Your task to perform on an android device: open sync settings in chrome Image 0: 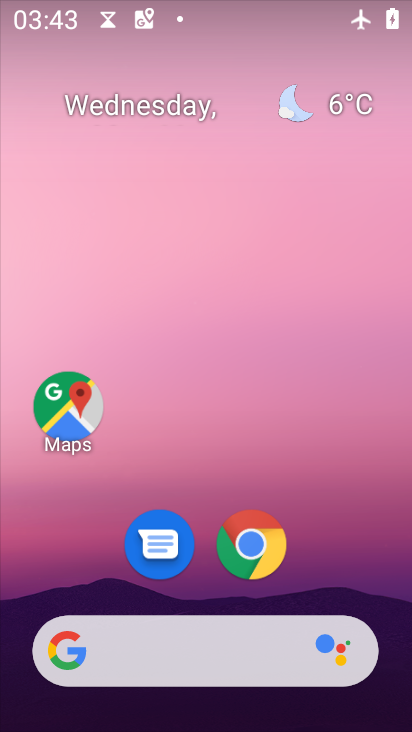
Step 0: drag from (312, 582) to (311, 4)
Your task to perform on an android device: open sync settings in chrome Image 1: 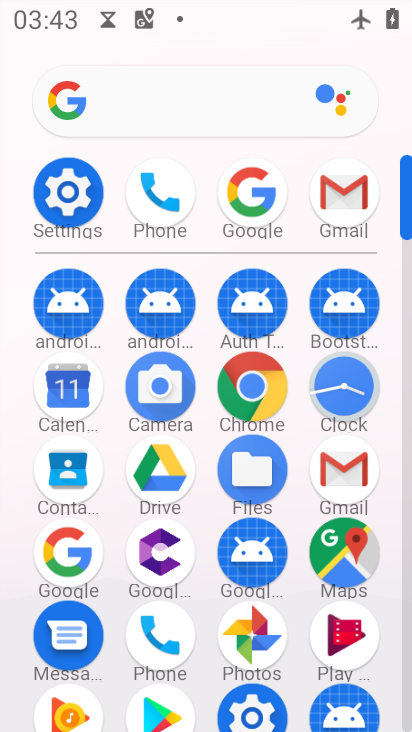
Step 1: click (231, 388)
Your task to perform on an android device: open sync settings in chrome Image 2: 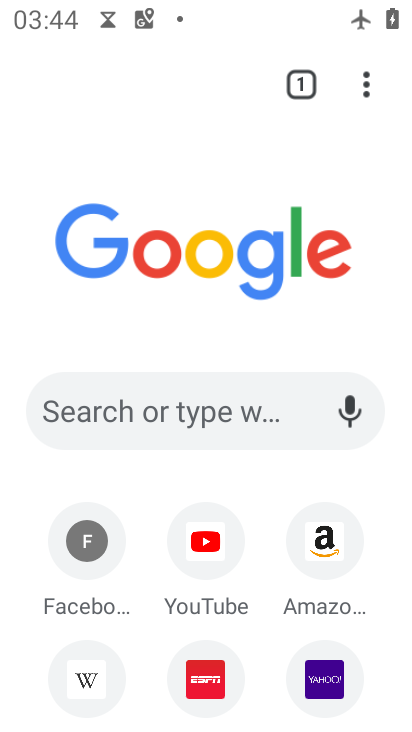
Step 2: click (362, 91)
Your task to perform on an android device: open sync settings in chrome Image 3: 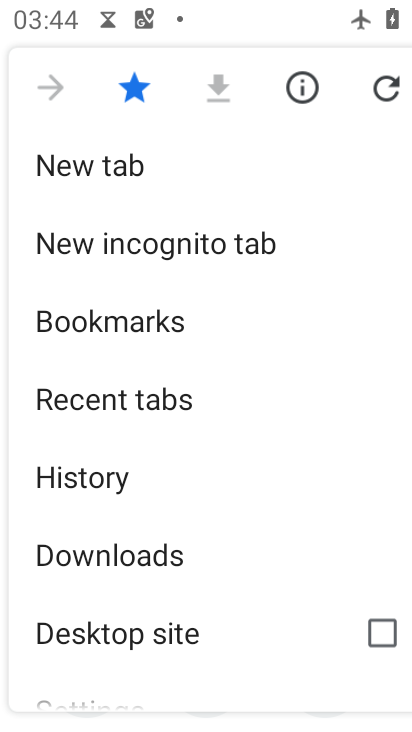
Step 3: drag from (167, 566) to (204, 161)
Your task to perform on an android device: open sync settings in chrome Image 4: 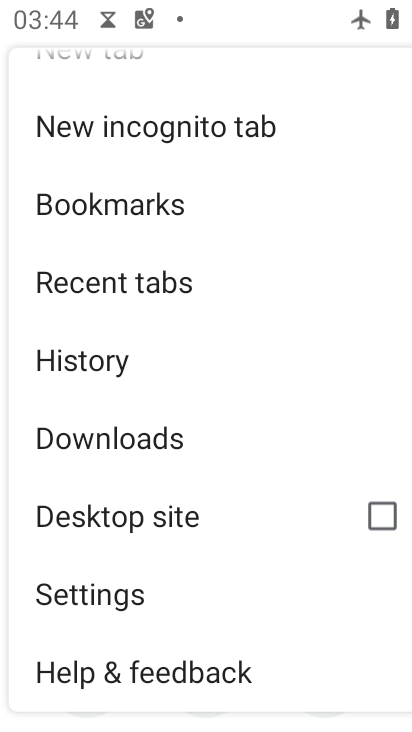
Step 4: click (173, 600)
Your task to perform on an android device: open sync settings in chrome Image 5: 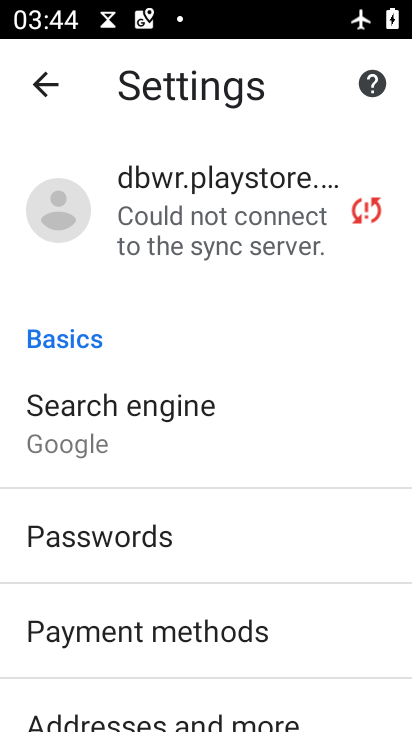
Step 5: click (217, 238)
Your task to perform on an android device: open sync settings in chrome Image 6: 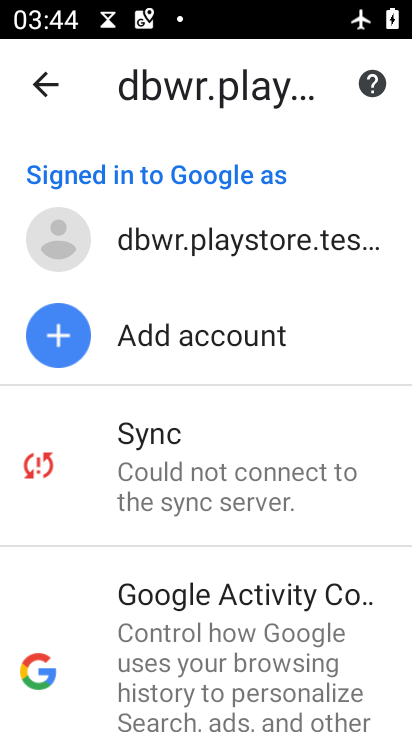
Step 6: click (175, 464)
Your task to perform on an android device: open sync settings in chrome Image 7: 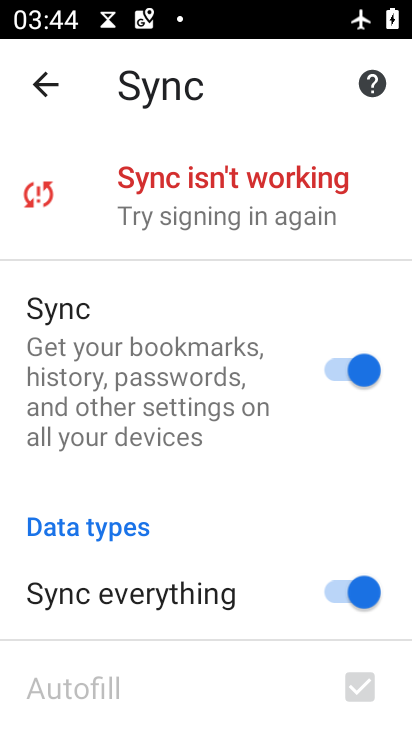
Step 7: task complete